Your task to perform on an android device: check the backup settings in the google photos Image 0: 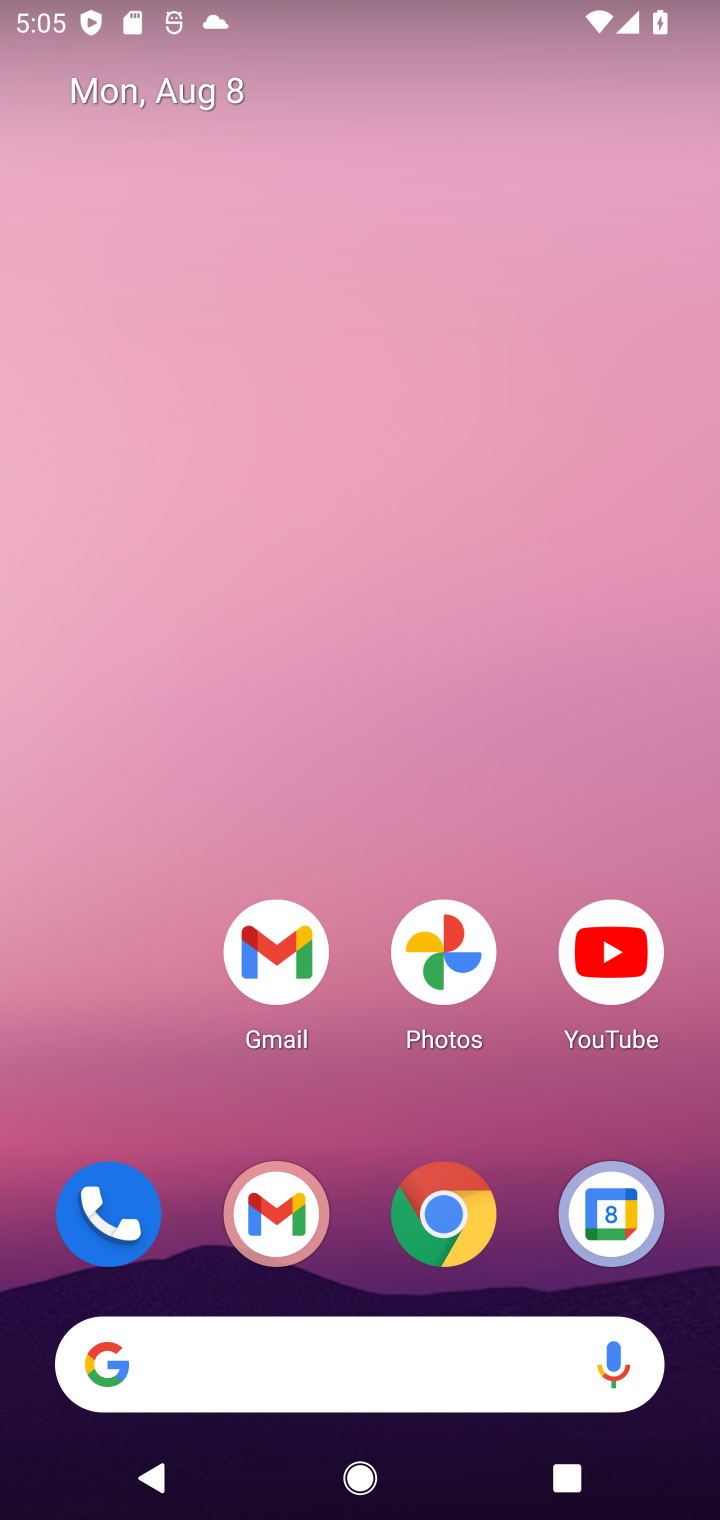
Step 0: drag from (382, 1303) to (371, 177)
Your task to perform on an android device: check the backup settings in the google photos Image 1: 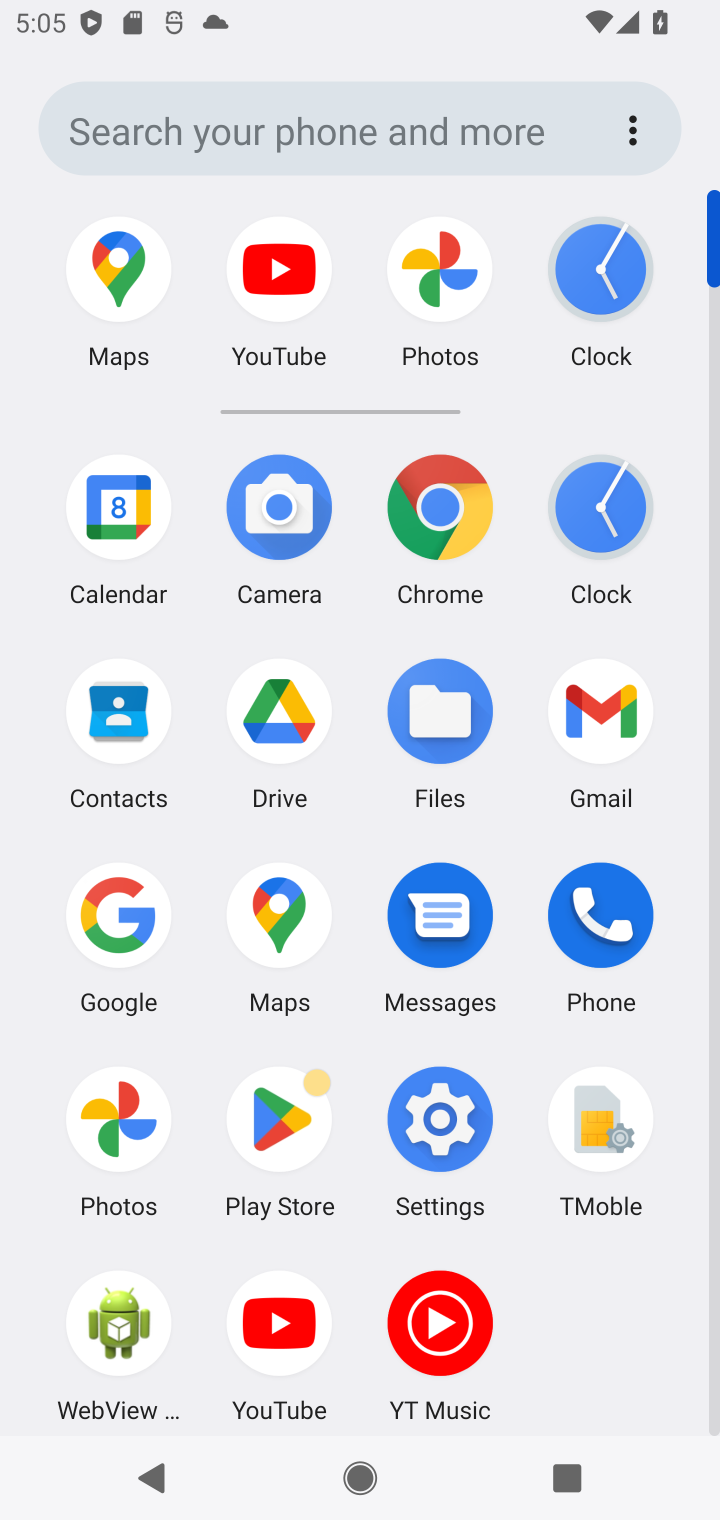
Step 1: click (116, 1124)
Your task to perform on an android device: check the backup settings in the google photos Image 2: 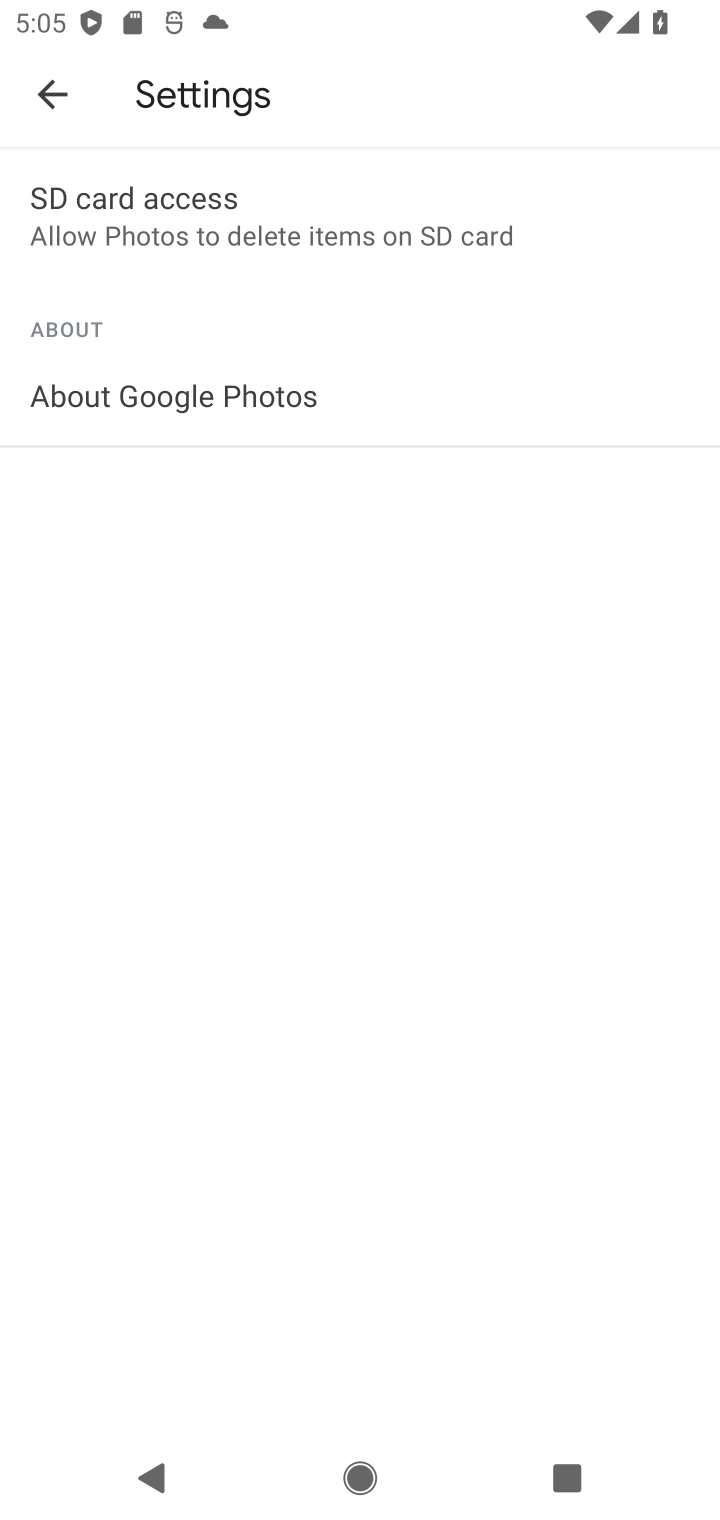
Step 2: click (45, 98)
Your task to perform on an android device: check the backup settings in the google photos Image 3: 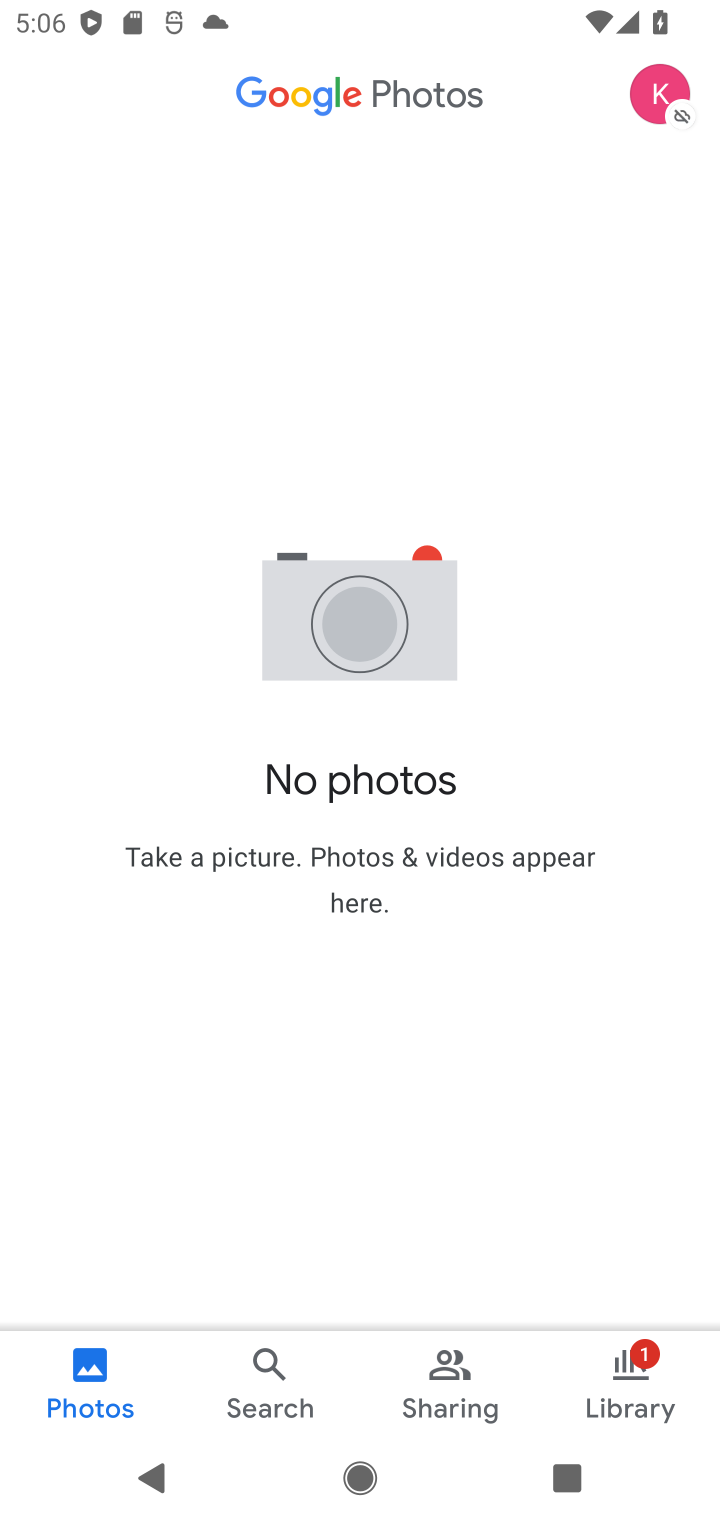
Step 3: click (667, 93)
Your task to perform on an android device: check the backup settings in the google photos Image 4: 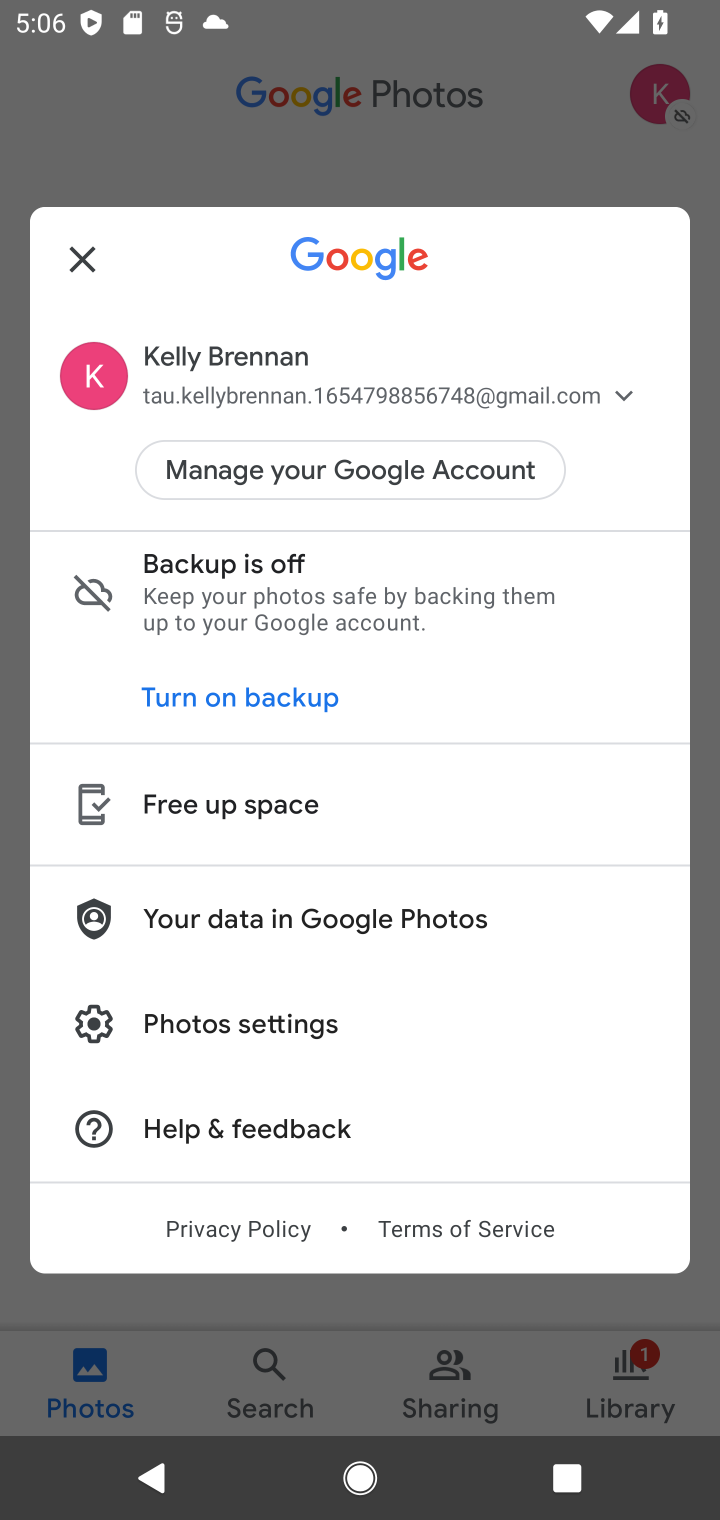
Step 4: click (239, 1023)
Your task to perform on an android device: check the backup settings in the google photos Image 5: 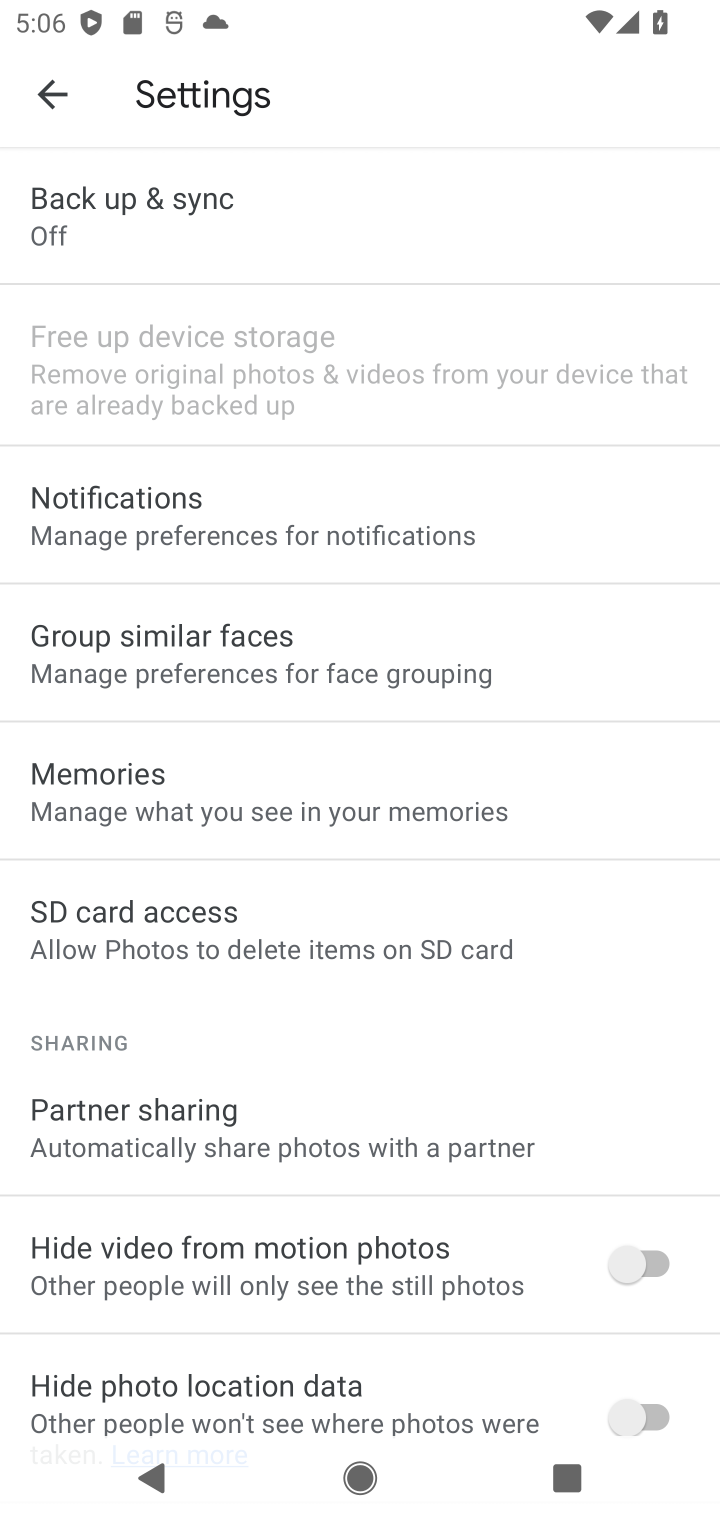
Step 5: click (125, 223)
Your task to perform on an android device: check the backup settings in the google photos Image 6: 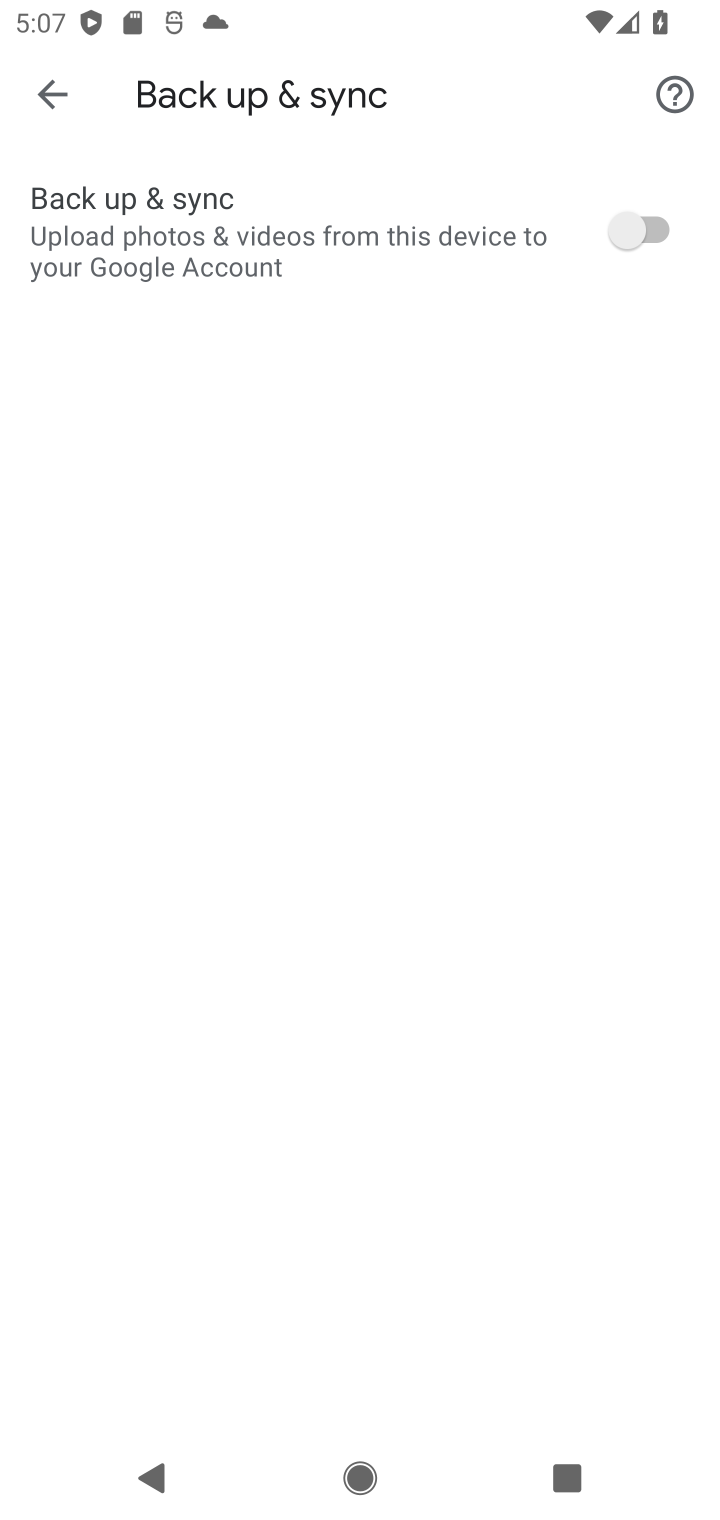
Step 6: task complete